Your task to perform on an android device: all mails in gmail Image 0: 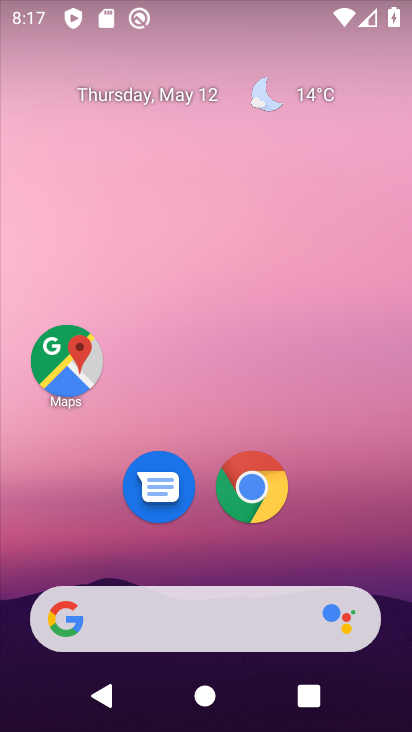
Step 0: drag from (385, 559) to (357, 1)
Your task to perform on an android device: all mails in gmail Image 1: 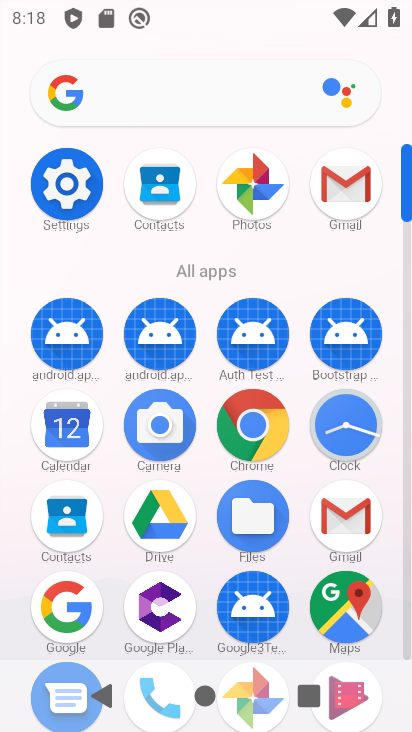
Step 1: click (333, 194)
Your task to perform on an android device: all mails in gmail Image 2: 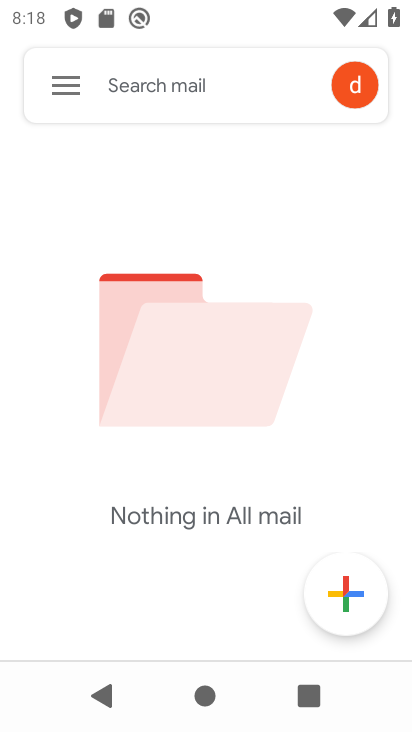
Step 2: task complete